Your task to perform on an android device: toggle wifi Image 0: 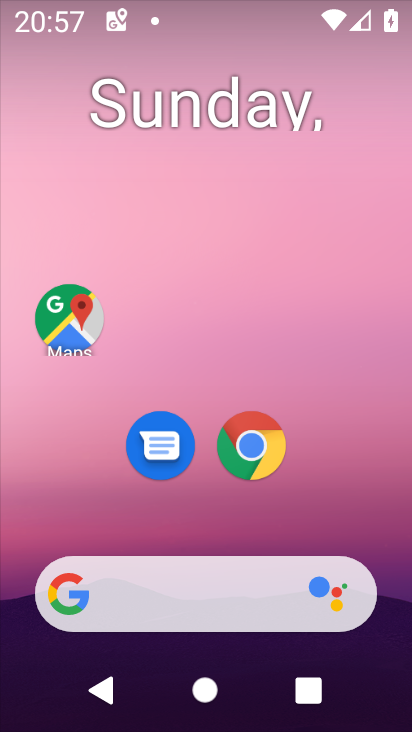
Step 0: click (315, 431)
Your task to perform on an android device: toggle wifi Image 1: 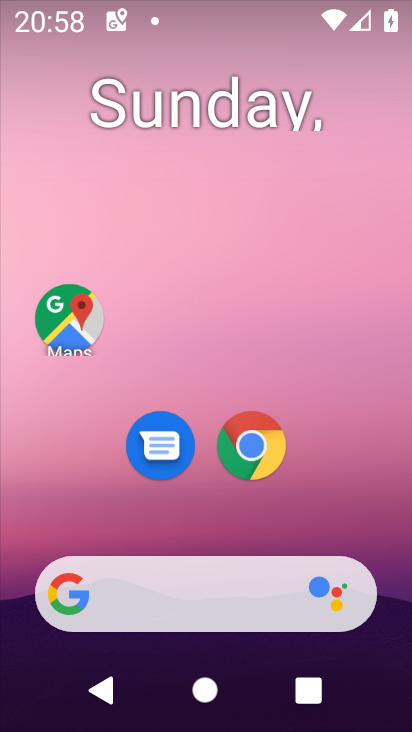
Step 1: drag from (140, 77) to (85, 555)
Your task to perform on an android device: toggle wifi Image 2: 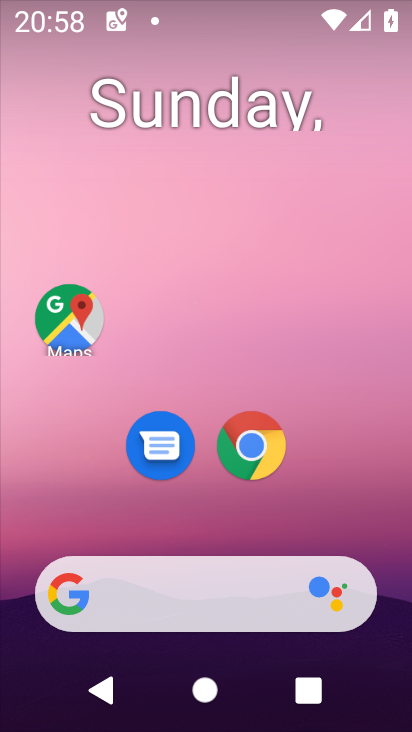
Step 2: drag from (130, 1) to (128, 490)
Your task to perform on an android device: toggle wifi Image 3: 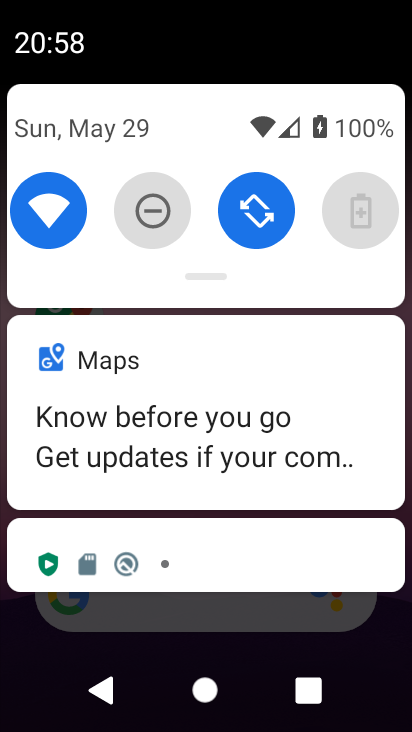
Step 3: click (41, 199)
Your task to perform on an android device: toggle wifi Image 4: 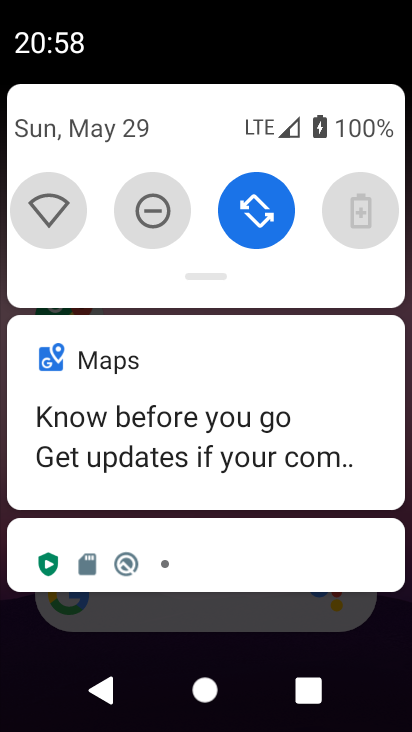
Step 4: task complete